Your task to perform on an android device: open app "Messages" (install if not already installed) Image 0: 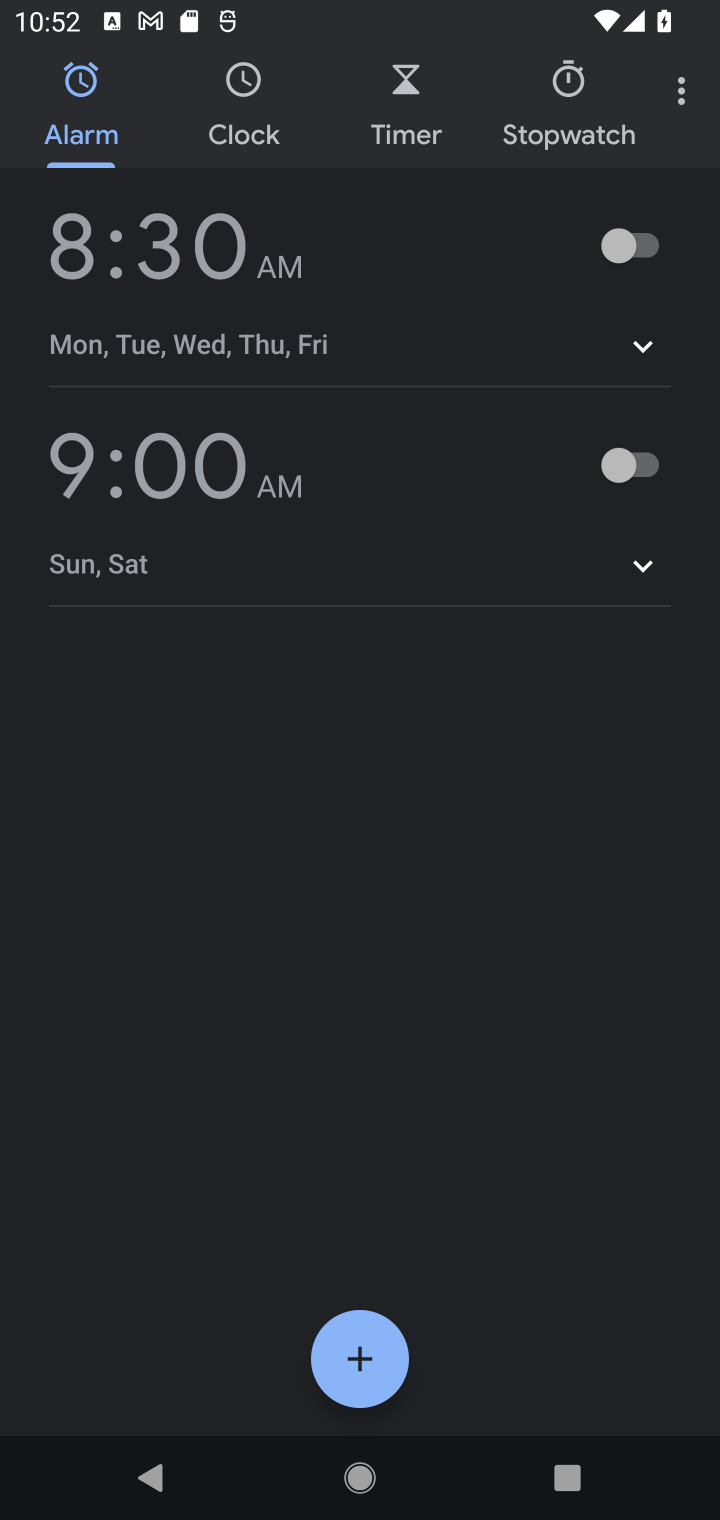
Step 0: press home button
Your task to perform on an android device: open app "Messages" (install if not already installed) Image 1: 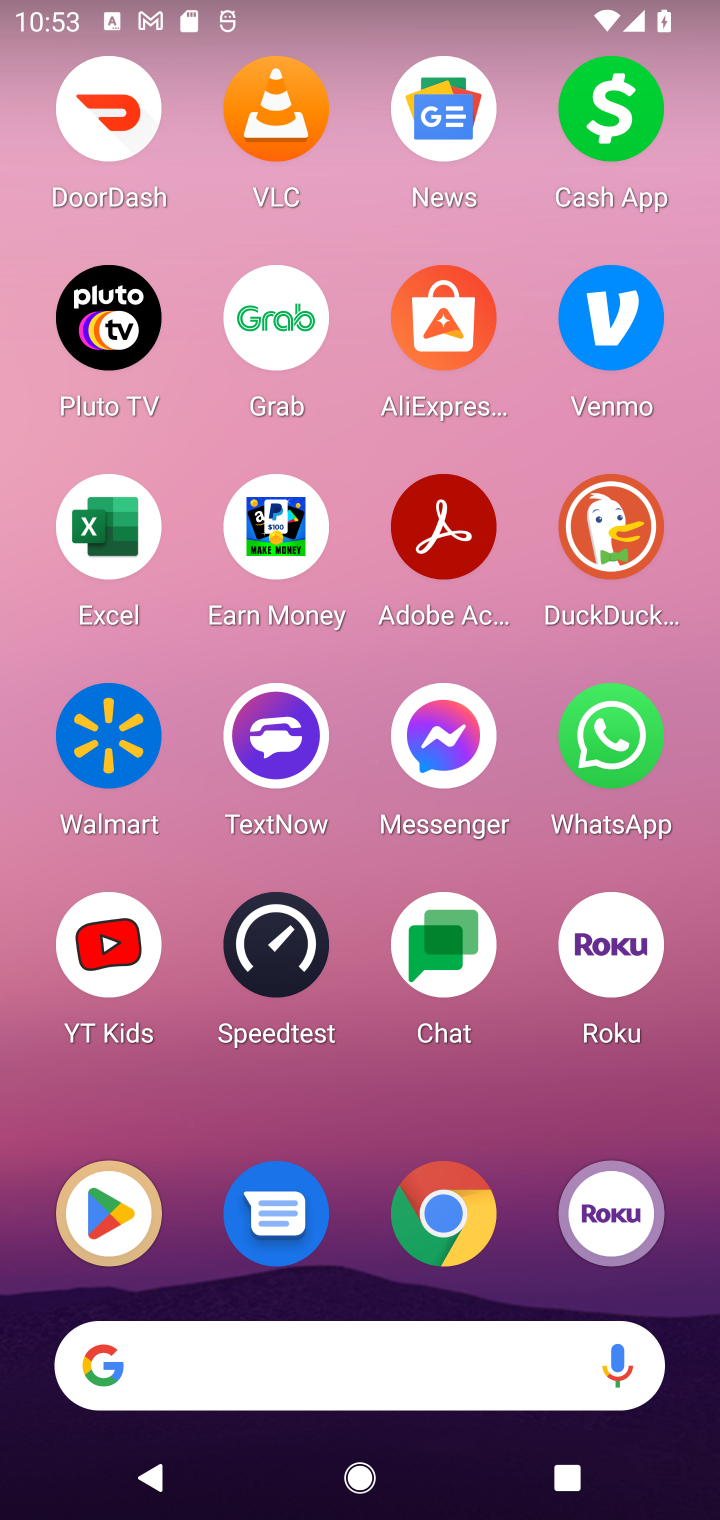
Step 1: click (89, 1217)
Your task to perform on an android device: open app "Messages" (install if not already installed) Image 2: 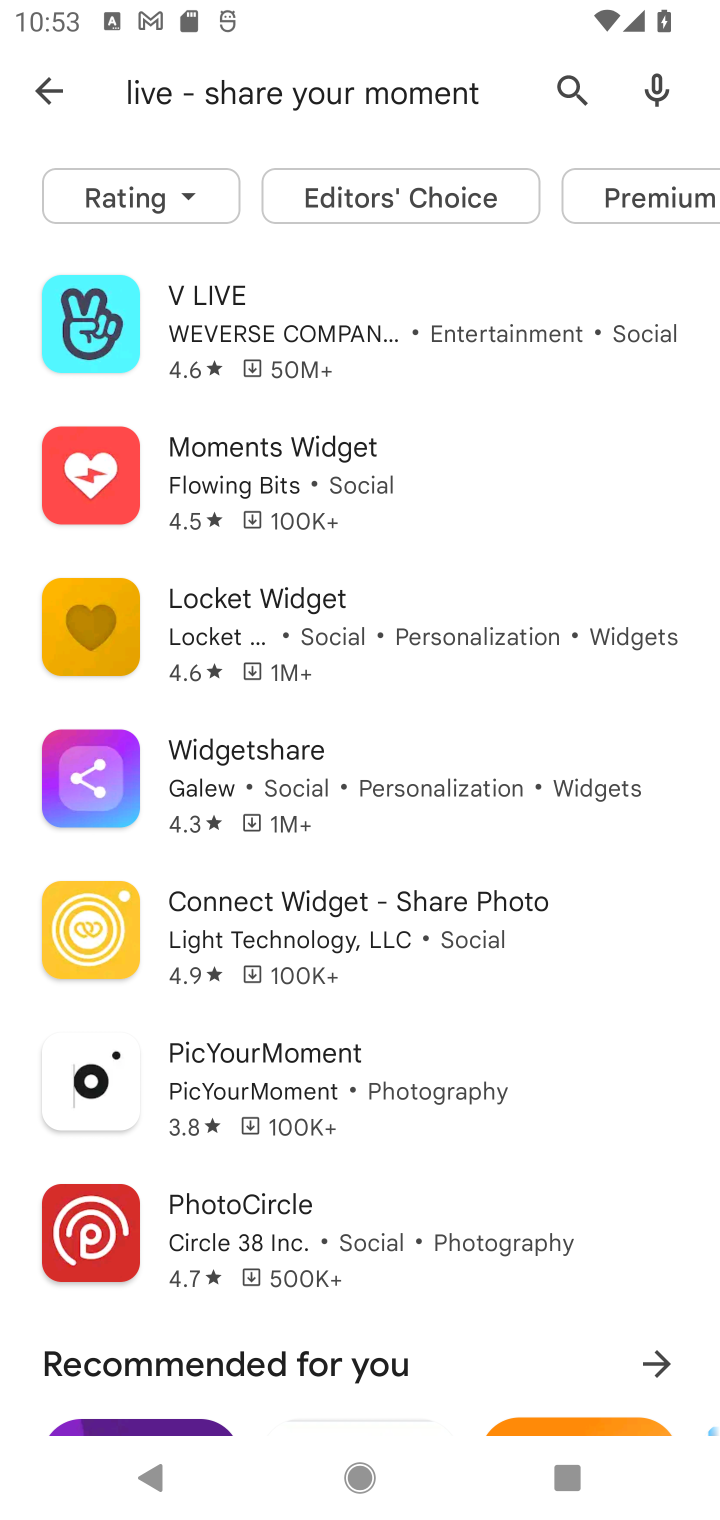
Step 2: click (58, 65)
Your task to perform on an android device: open app "Messages" (install if not already installed) Image 3: 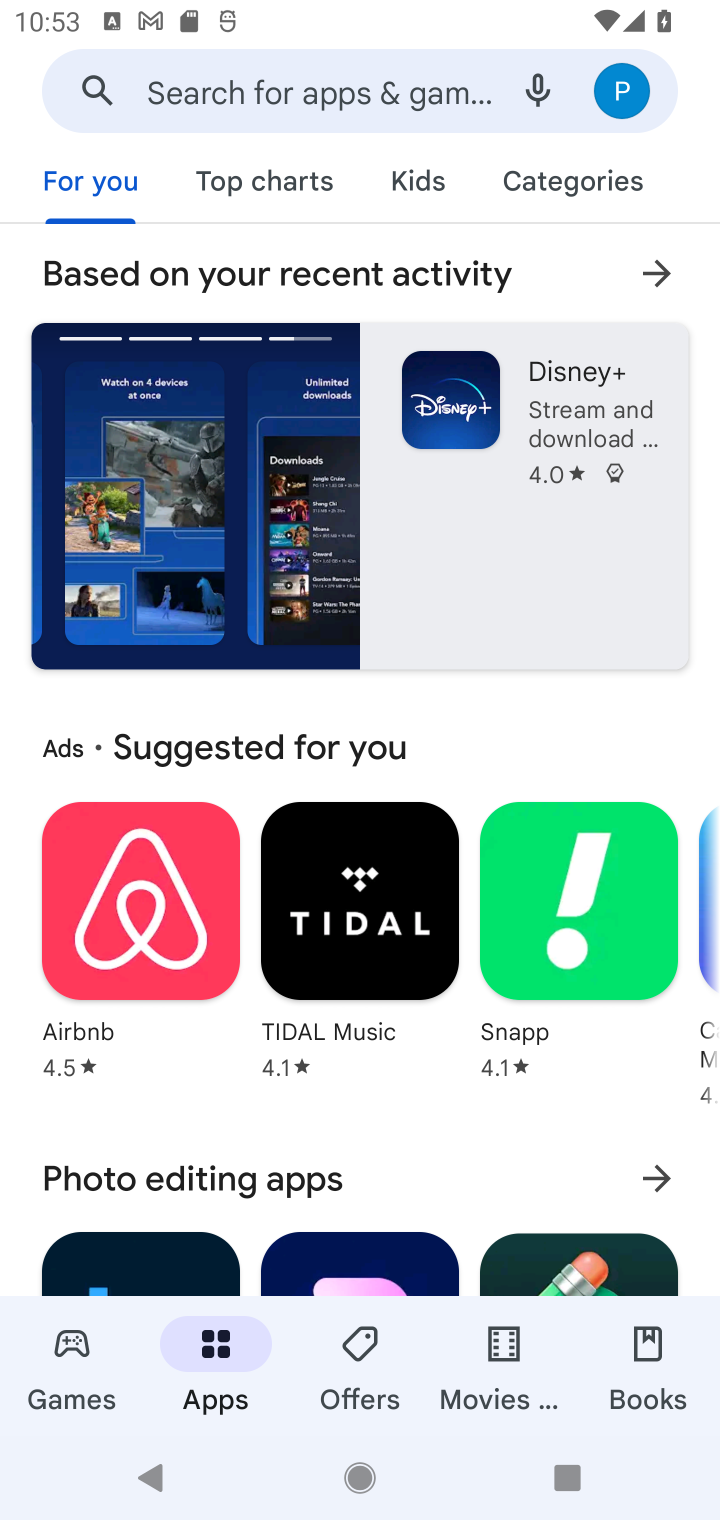
Step 3: click (154, 88)
Your task to perform on an android device: open app "Messages" (install if not already installed) Image 4: 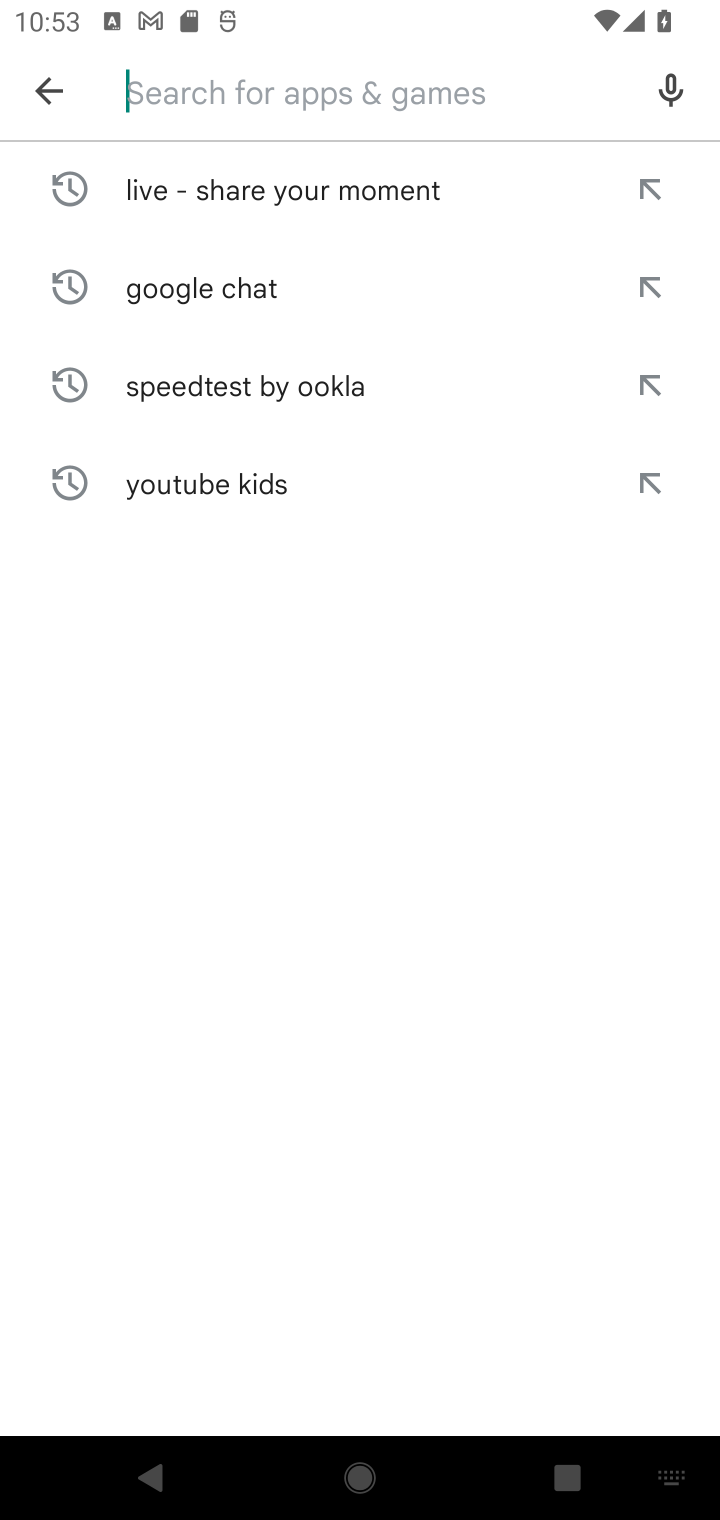
Step 4: type "Messages"
Your task to perform on an android device: open app "Messages" (install if not already installed) Image 5: 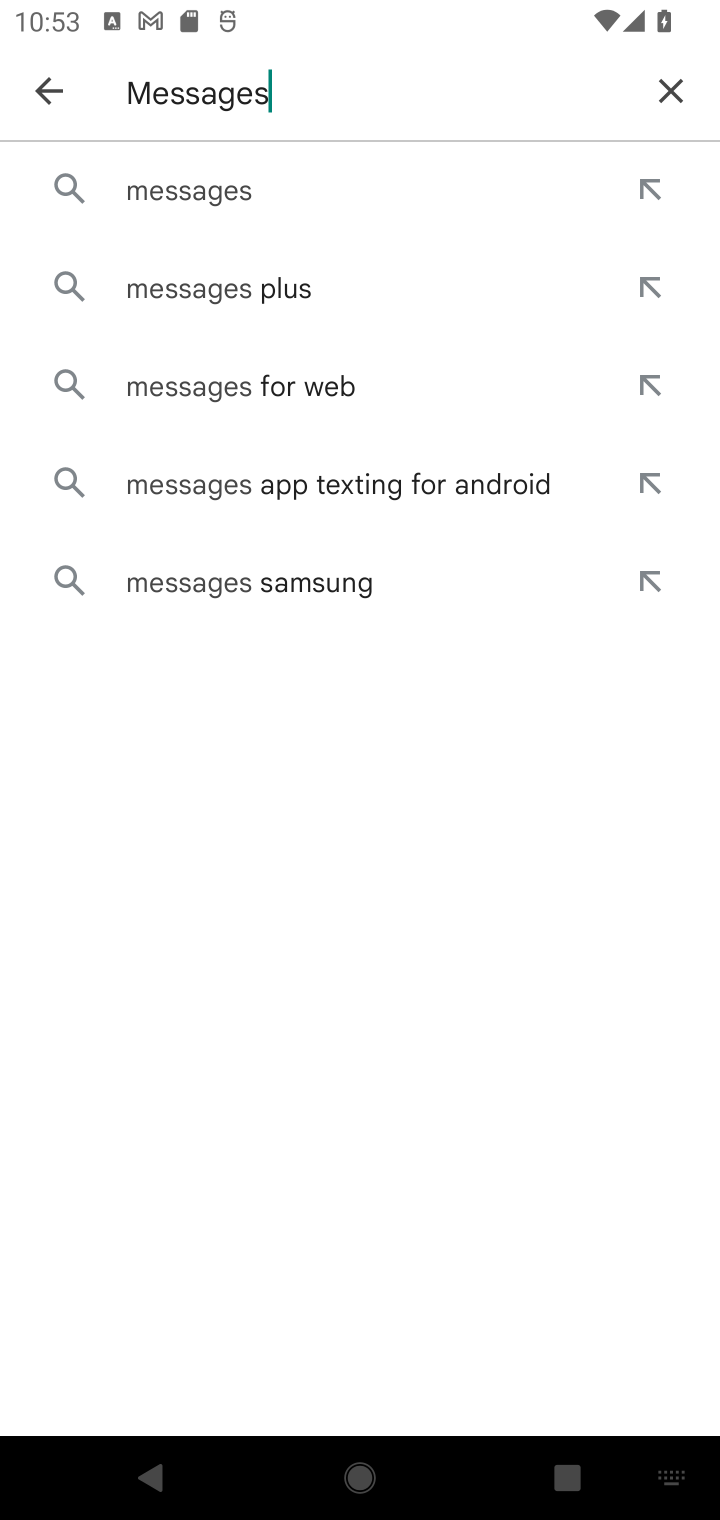
Step 5: click (166, 203)
Your task to perform on an android device: open app "Messages" (install if not already installed) Image 6: 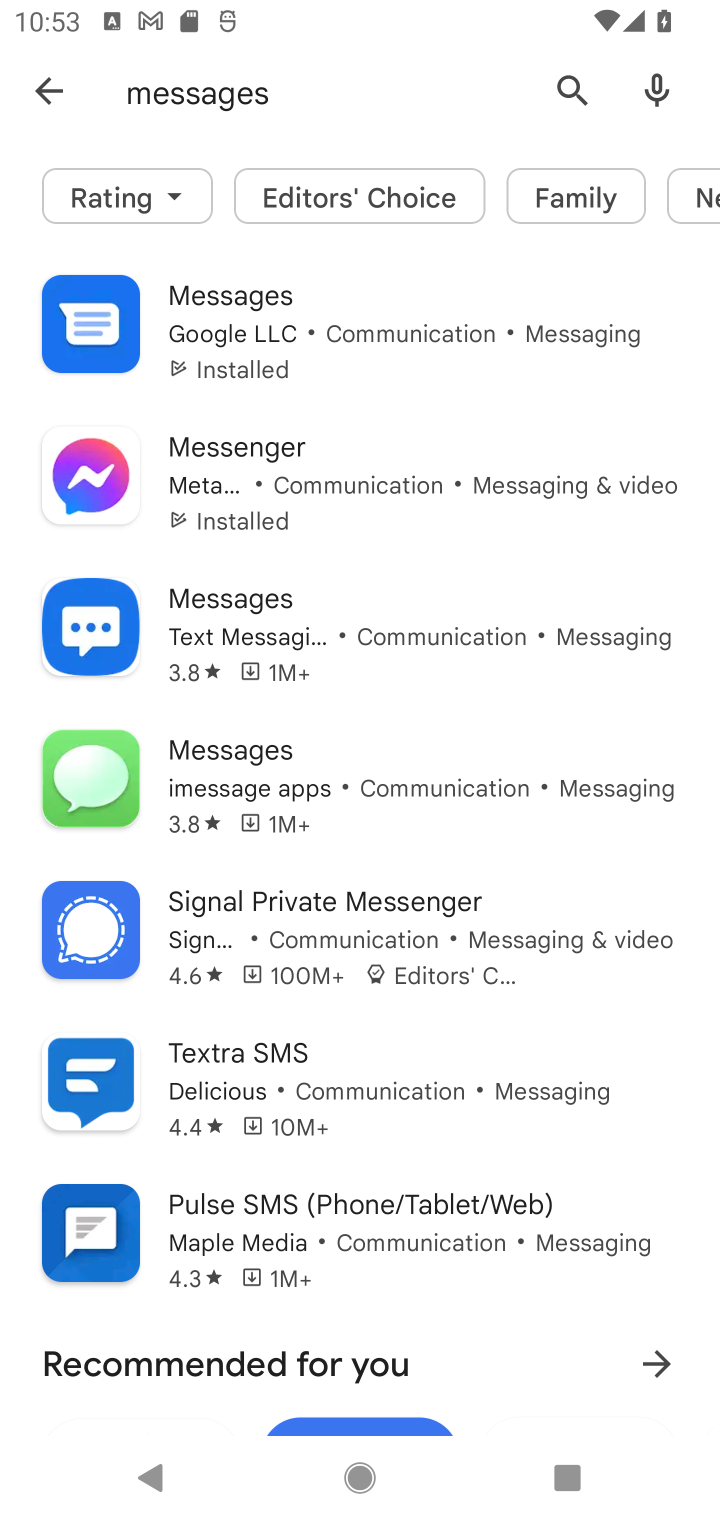
Step 6: click (214, 325)
Your task to perform on an android device: open app "Messages" (install if not already installed) Image 7: 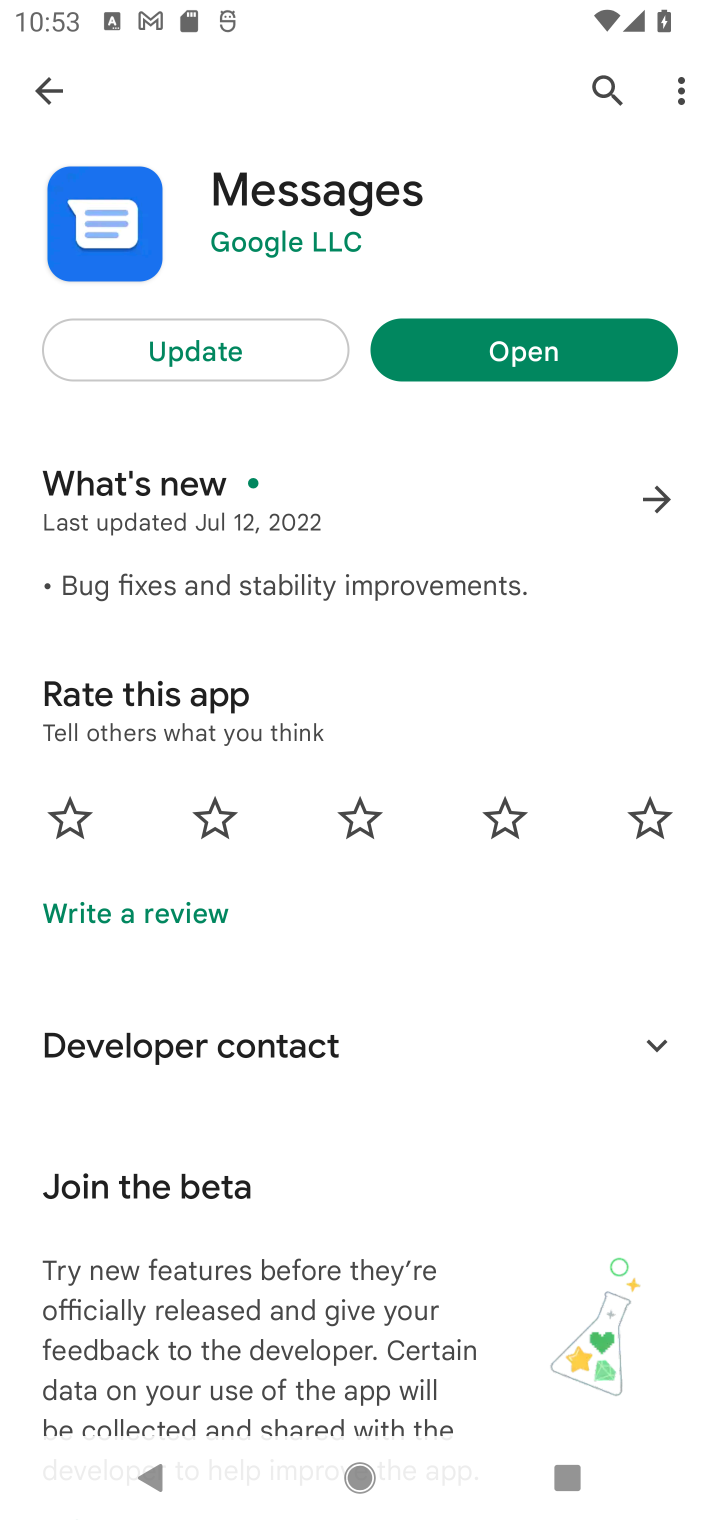
Step 7: click (523, 338)
Your task to perform on an android device: open app "Messages" (install if not already installed) Image 8: 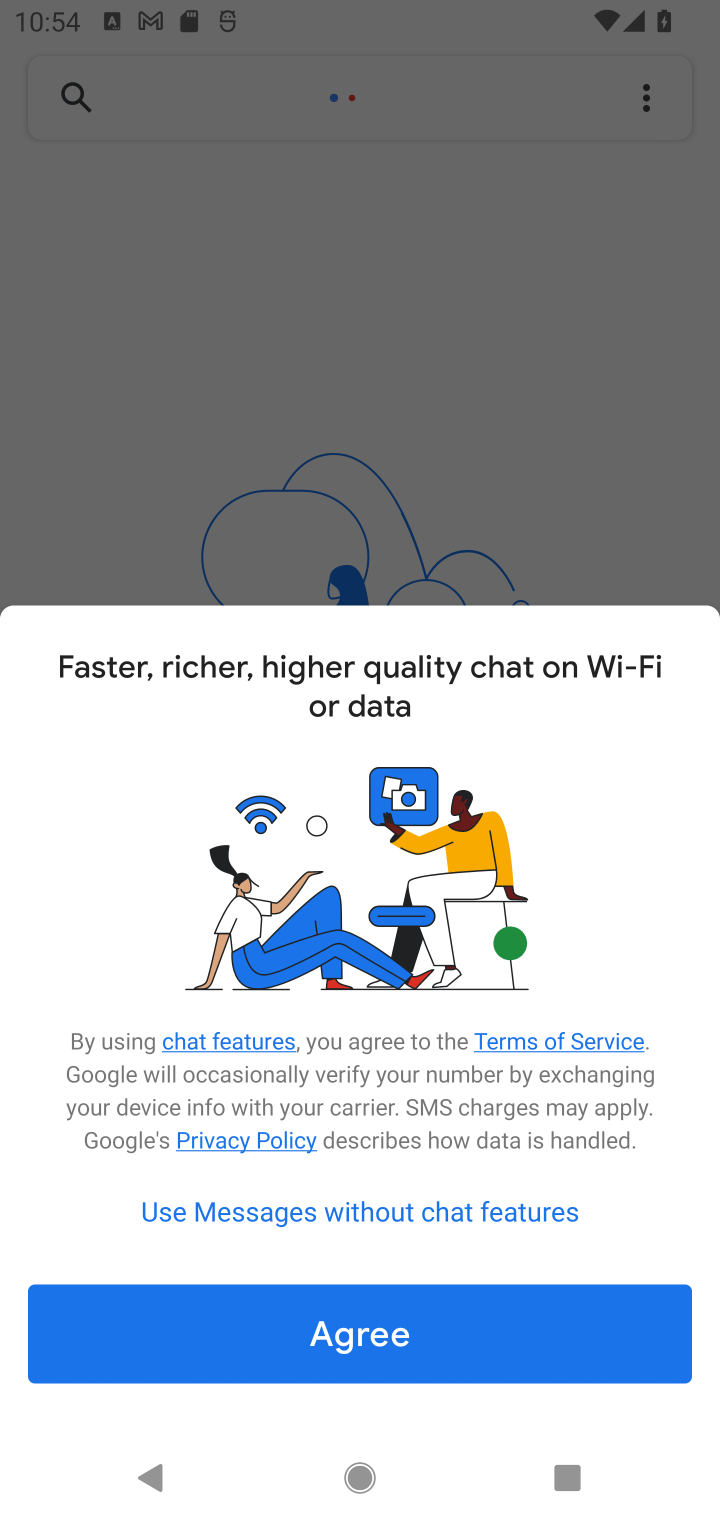
Step 8: task complete